Your task to perform on an android device: What's the weather? Image 0: 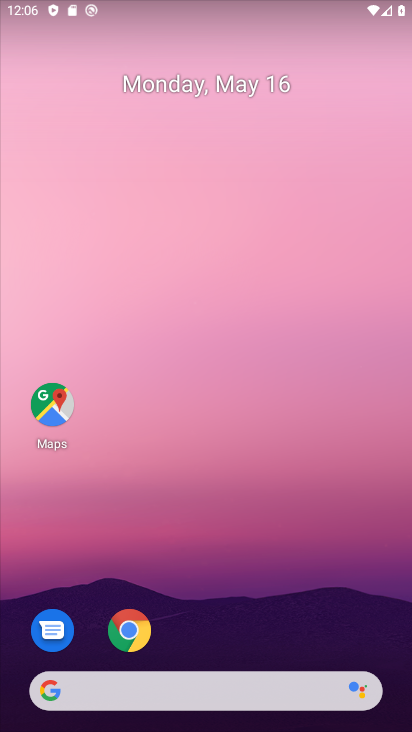
Step 0: click (54, 690)
Your task to perform on an android device: What's the weather? Image 1: 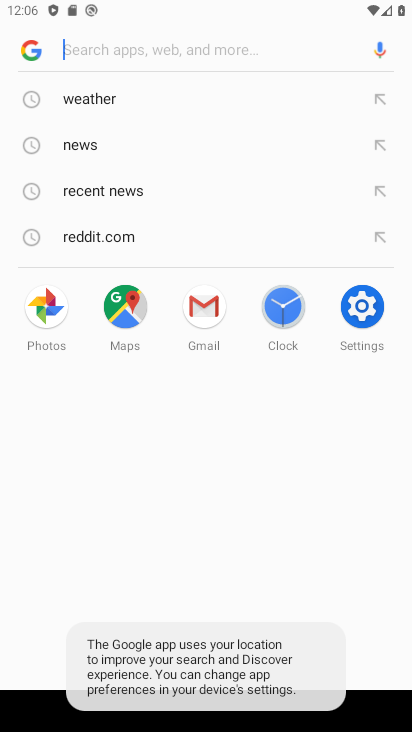
Step 1: click (43, 58)
Your task to perform on an android device: What's the weather? Image 2: 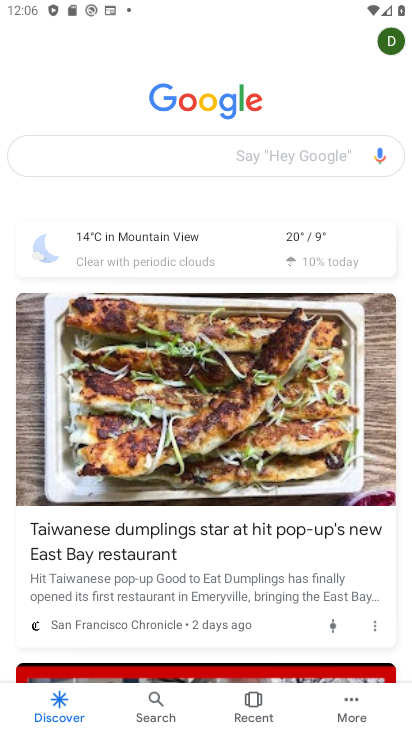
Step 2: click (241, 239)
Your task to perform on an android device: What's the weather? Image 3: 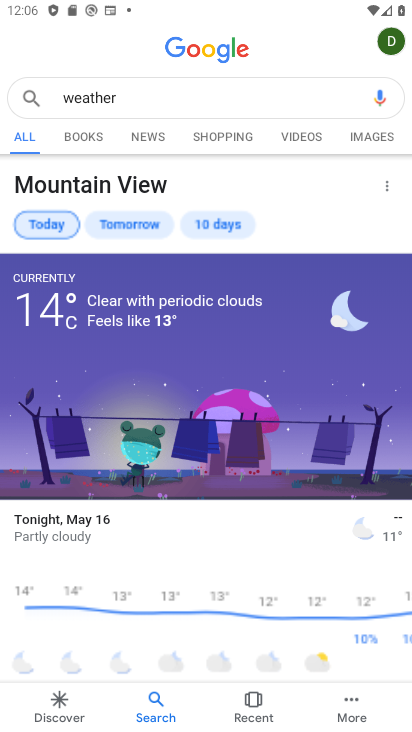
Step 3: task complete